Your task to perform on an android device: turn on the 24-hour format for clock Image 0: 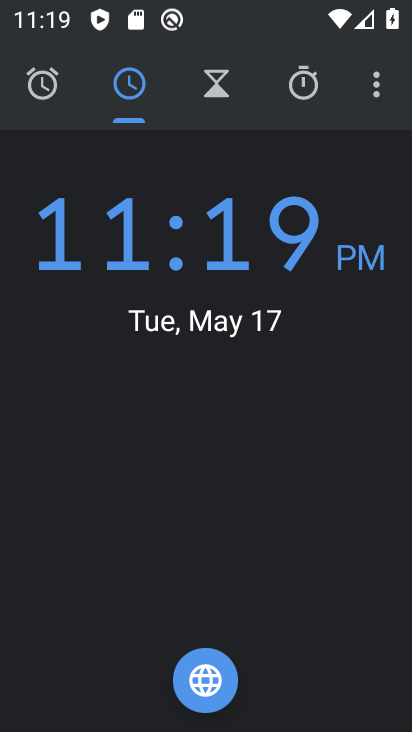
Step 0: press home button
Your task to perform on an android device: turn on the 24-hour format for clock Image 1: 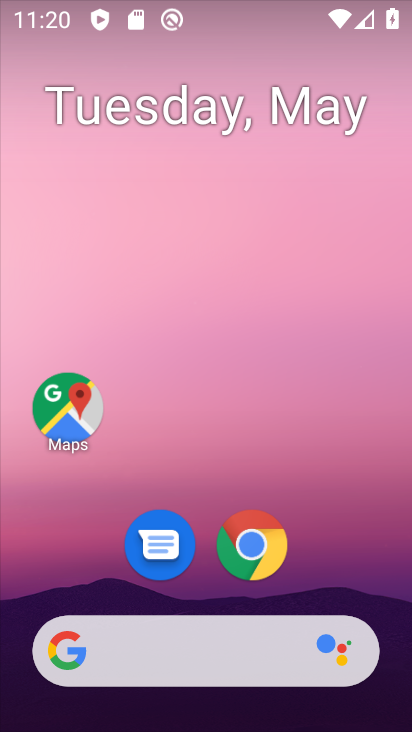
Step 1: drag from (206, 590) to (252, 127)
Your task to perform on an android device: turn on the 24-hour format for clock Image 2: 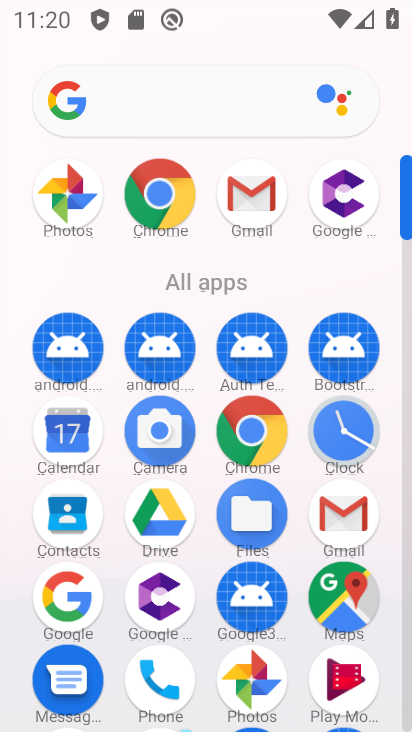
Step 2: drag from (209, 552) to (227, 231)
Your task to perform on an android device: turn on the 24-hour format for clock Image 3: 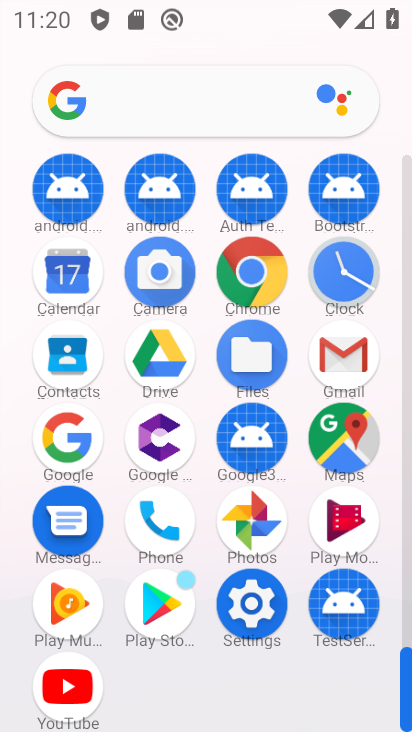
Step 3: click (255, 593)
Your task to perform on an android device: turn on the 24-hour format for clock Image 4: 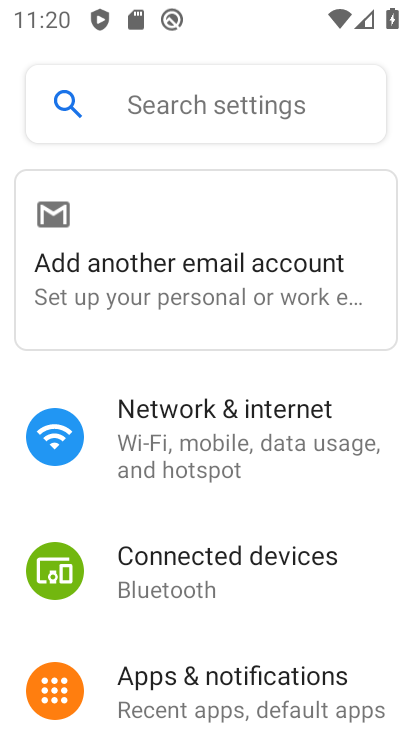
Step 4: drag from (197, 520) to (225, 294)
Your task to perform on an android device: turn on the 24-hour format for clock Image 5: 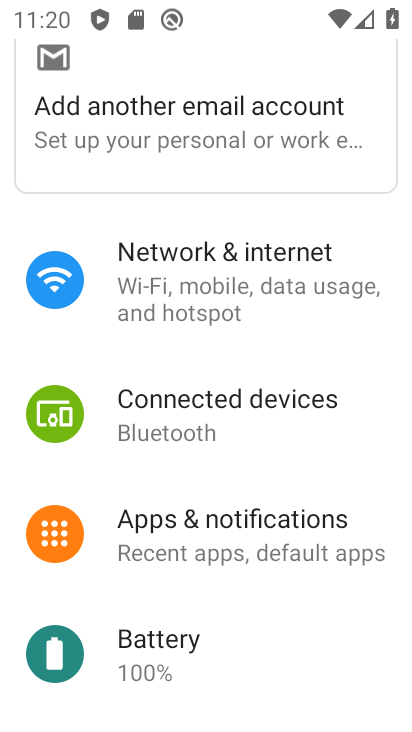
Step 5: press home button
Your task to perform on an android device: turn on the 24-hour format for clock Image 6: 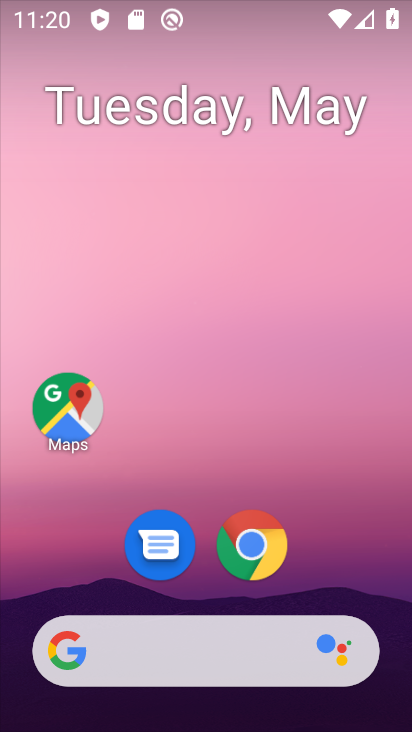
Step 6: drag from (193, 581) to (256, 210)
Your task to perform on an android device: turn on the 24-hour format for clock Image 7: 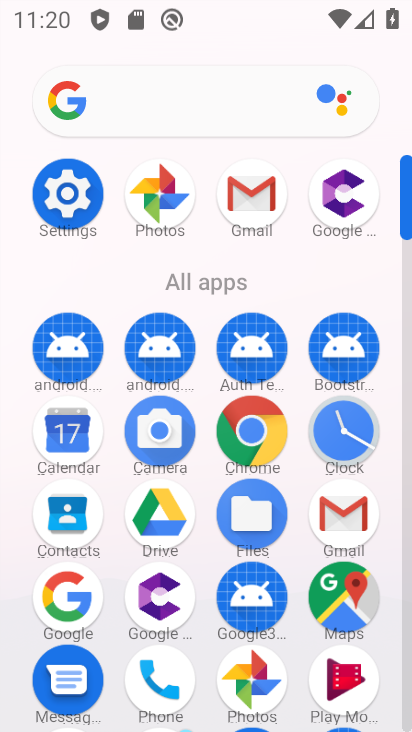
Step 7: click (346, 430)
Your task to perform on an android device: turn on the 24-hour format for clock Image 8: 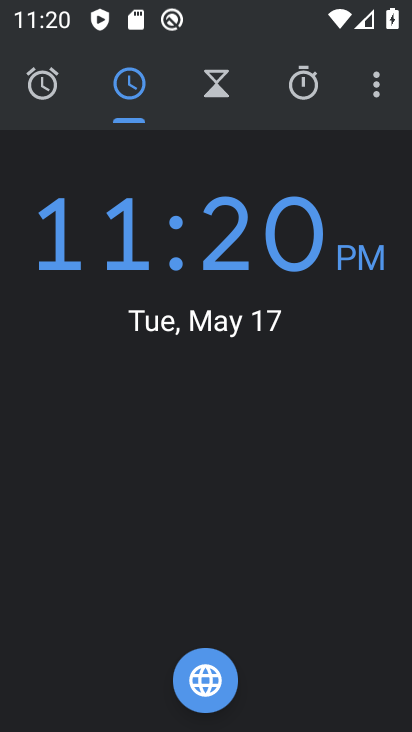
Step 8: click (377, 91)
Your task to perform on an android device: turn on the 24-hour format for clock Image 9: 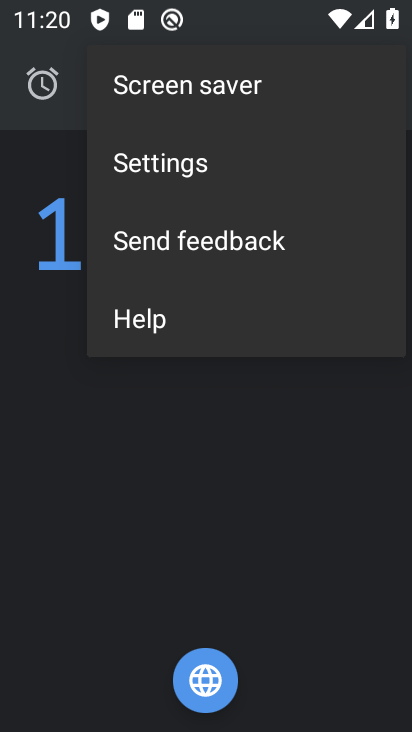
Step 9: click (188, 160)
Your task to perform on an android device: turn on the 24-hour format for clock Image 10: 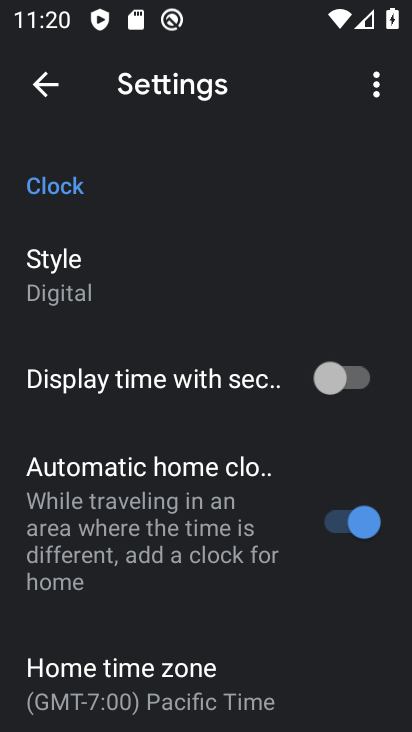
Step 10: drag from (180, 580) to (233, 249)
Your task to perform on an android device: turn on the 24-hour format for clock Image 11: 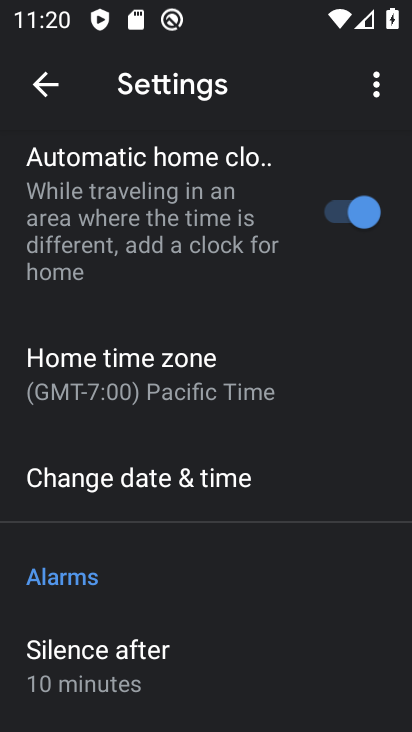
Step 11: click (161, 490)
Your task to perform on an android device: turn on the 24-hour format for clock Image 12: 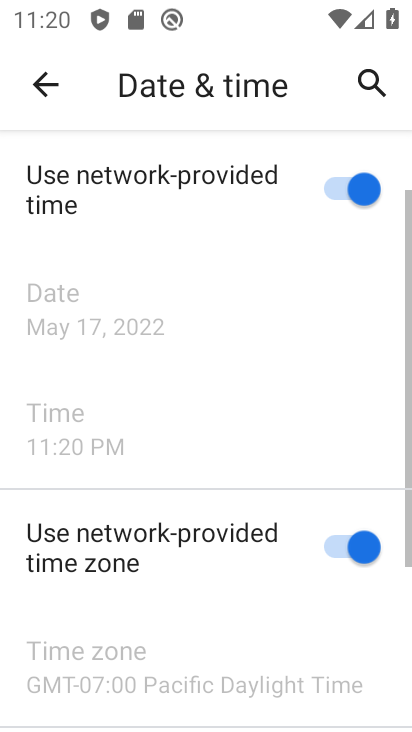
Step 12: drag from (200, 533) to (318, 110)
Your task to perform on an android device: turn on the 24-hour format for clock Image 13: 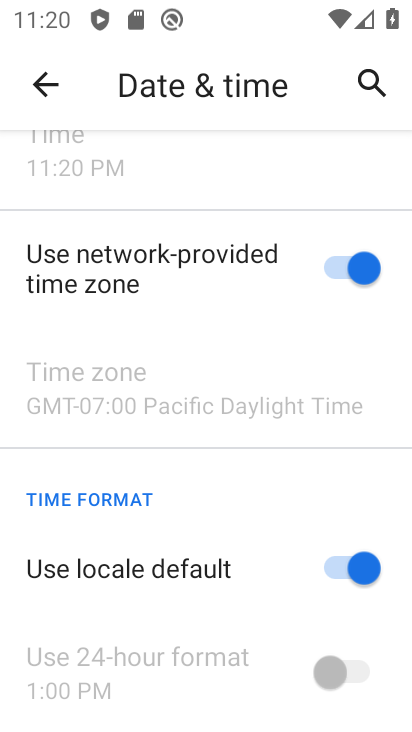
Step 13: click (332, 573)
Your task to perform on an android device: turn on the 24-hour format for clock Image 14: 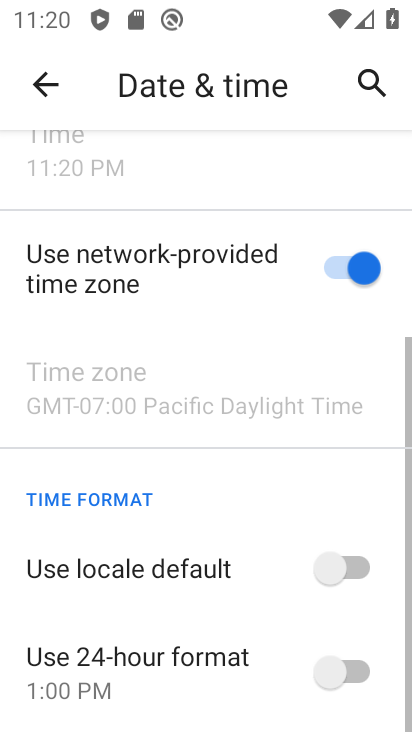
Step 14: click (344, 670)
Your task to perform on an android device: turn on the 24-hour format for clock Image 15: 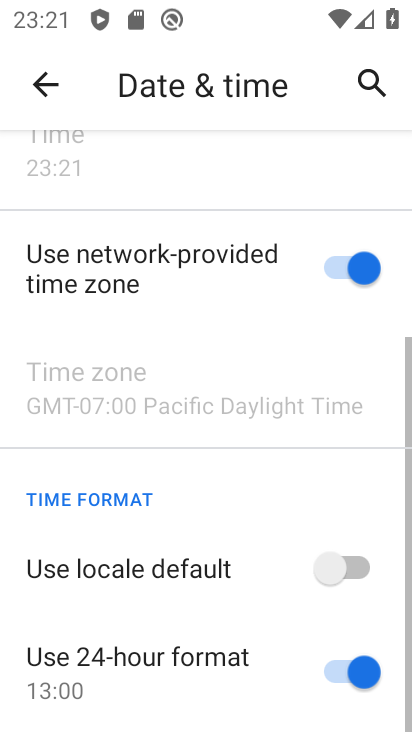
Step 15: task complete